Your task to perform on an android device: Open Android settings Image 0: 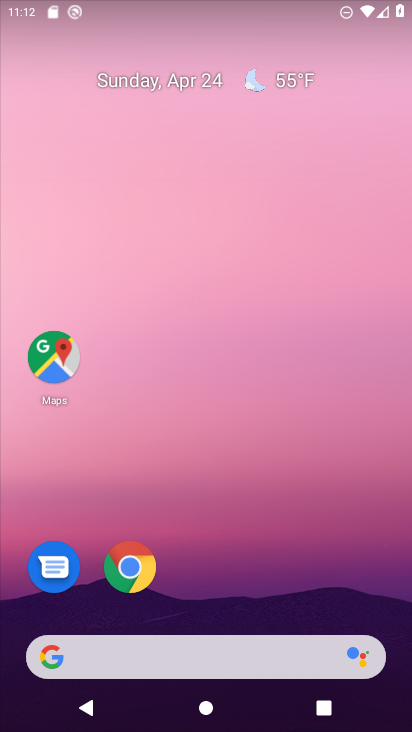
Step 0: drag from (381, 587) to (353, 185)
Your task to perform on an android device: Open Android settings Image 1: 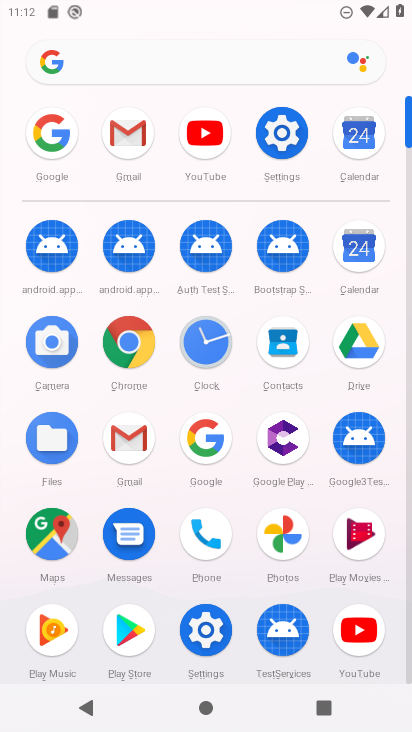
Step 1: click (197, 638)
Your task to perform on an android device: Open Android settings Image 2: 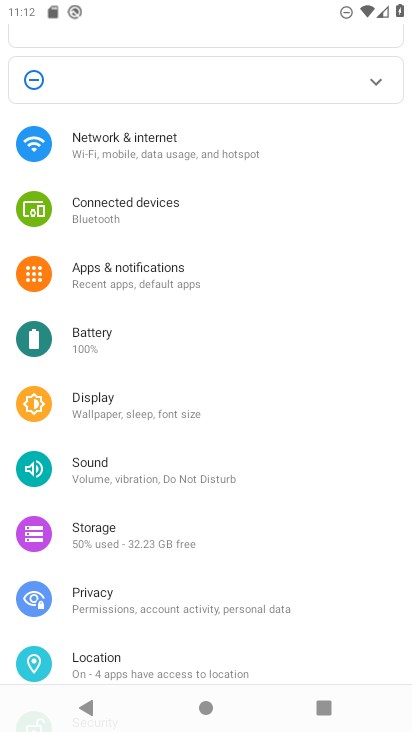
Step 2: drag from (361, 318) to (364, 230)
Your task to perform on an android device: Open Android settings Image 3: 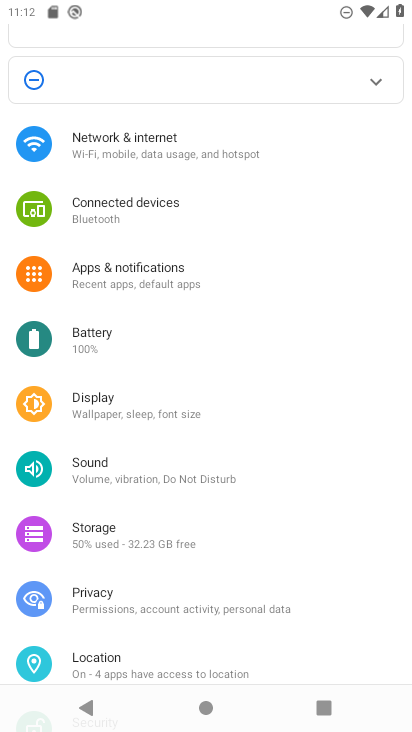
Step 3: drag from (361, 664) to (369, 319)
Your task to perform on an android device: Open Android settings Image 4: 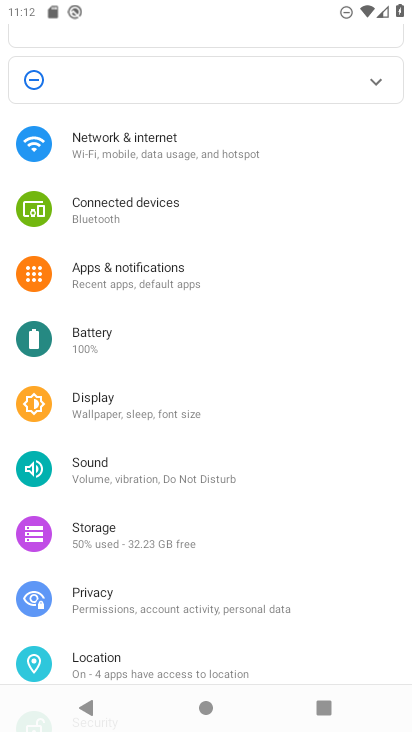
Step 4: drag from (372, 661) to (373, 492)
Your task to perform on an android device: Open Android settings Image 5: 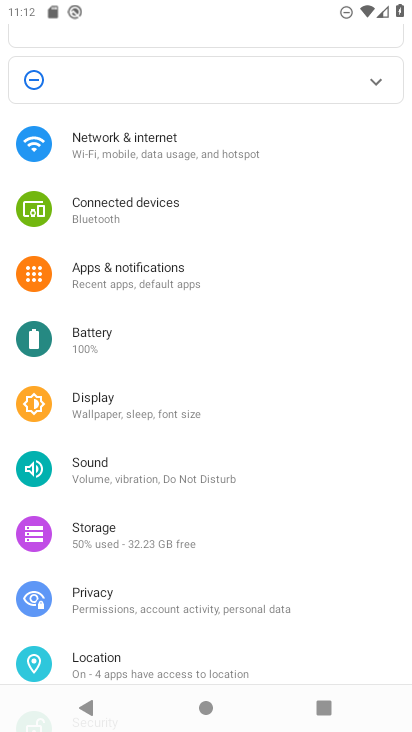
Step 5: drag from (372, 665) to (378, 317)
Your task to perform on an android device: Open Android settings Image 6: 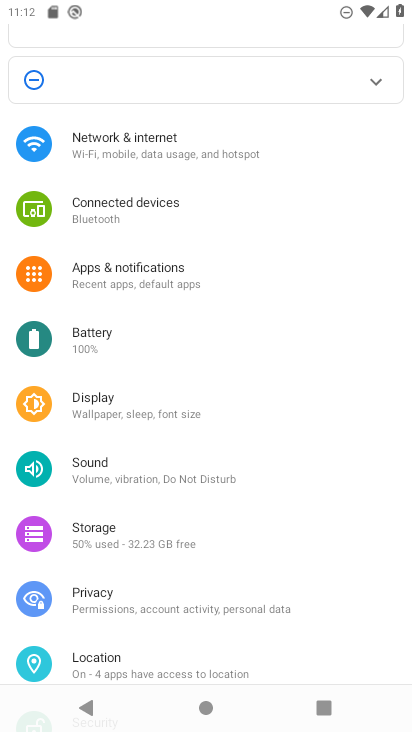
Step 6: drag from (378, 651) to (376, 317)
Your task to perform on an android device: Open Android settings Image 7: 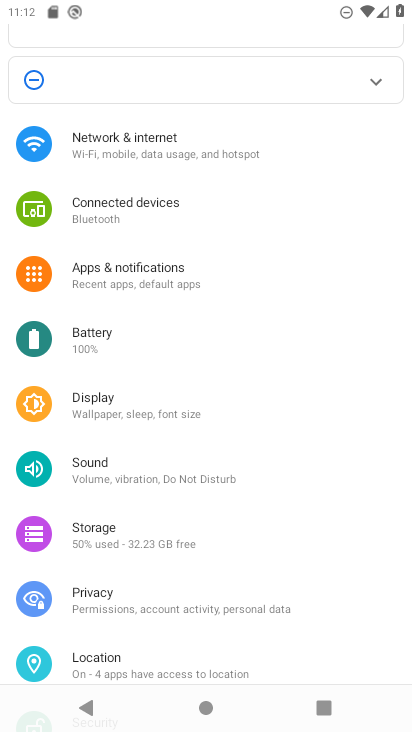
Step 7: drag from (378, 335) to (381, 300)
Your task to perform on an android device: Open Android settings Image 8: 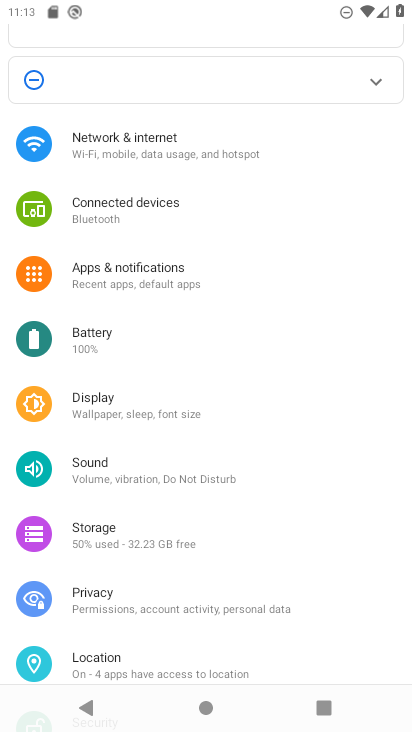
Step 8: drag from (387, 656) to (395, 304)
Your task to perform on an android device: Open Android settings Image 9: 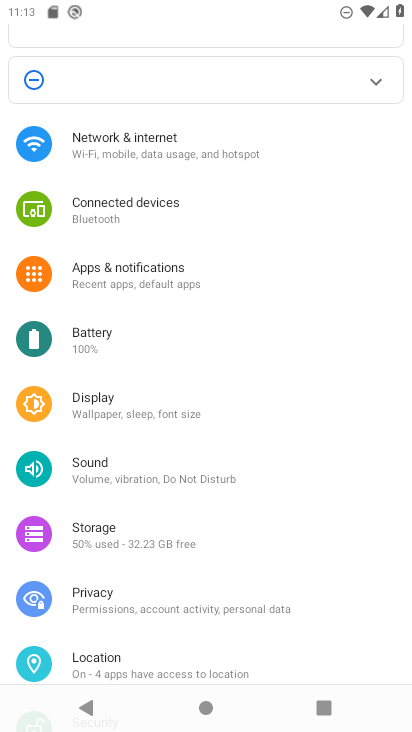
Step 9: drag from (361, 295) to (358, 247)
Your task to perform on an android device: Open Android settings Image 10: 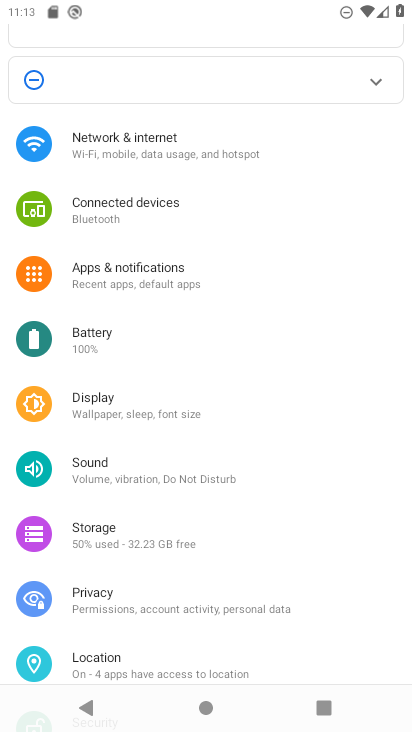
Step 10: click (367, 341)
Your task to perform on an android device: Open Android settings Image 11: 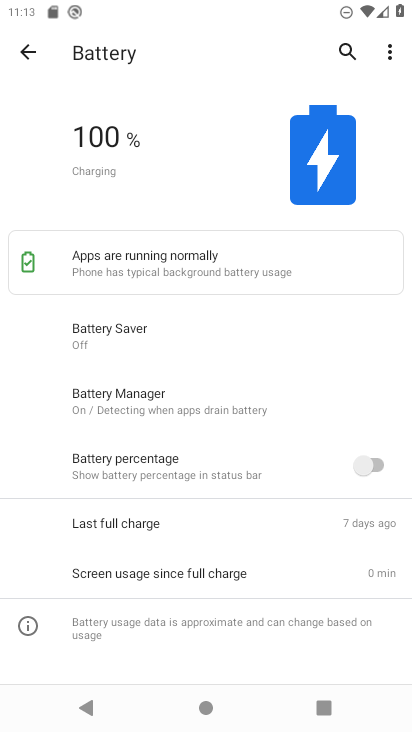
Step 11: click (29, 43)
Your task to perform on an android device: Open Android settings Image 12: 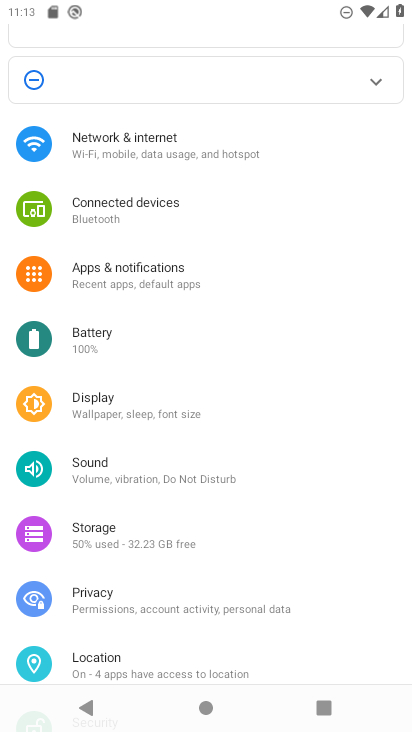
Step 12: click (389, 262)
Your task to perform on an android device: Open Android settings Image 13: 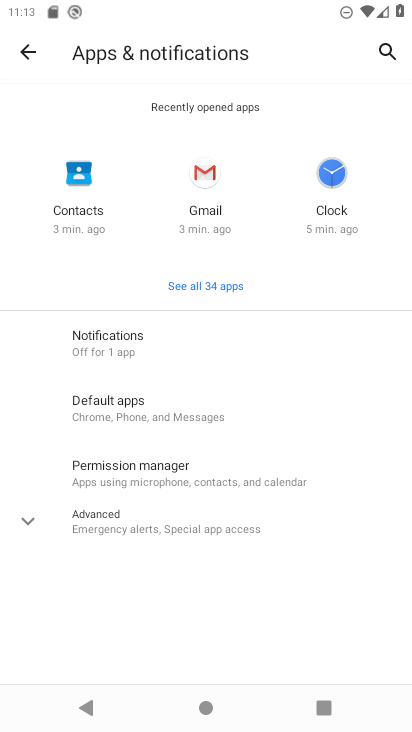
Step 13: drag from (371, 635) to (363, 204)
Your task to perform on an android device: Open Android settings Image 14: 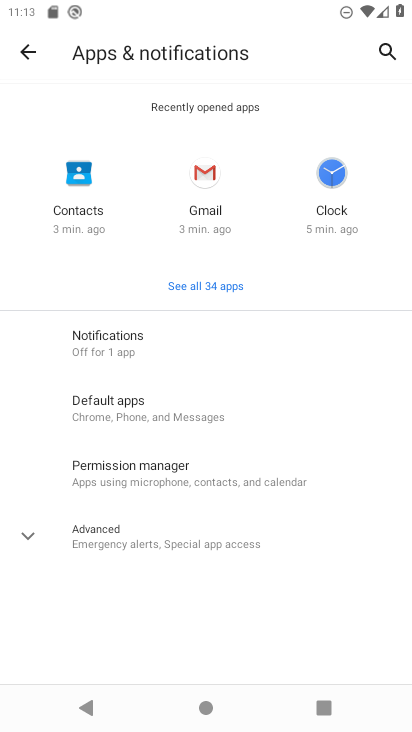
Step 14: click (22, 54)
Your task to perform on an android device: Open Android settings Image 15: 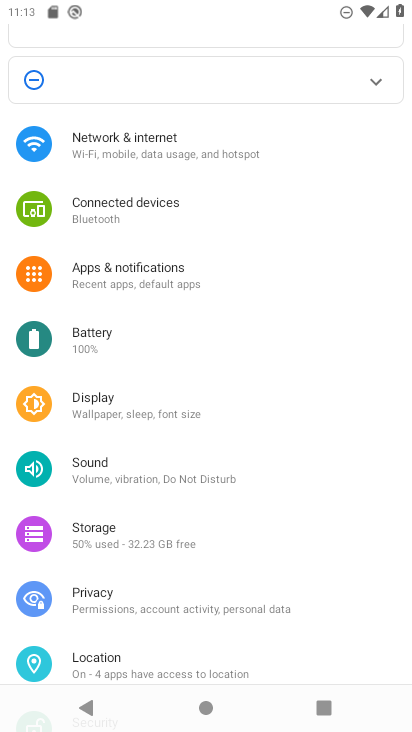
Step 15: drag from (363, 324) to (354, 227)
Your task to perform on an android device: Open Android settings Image 16: 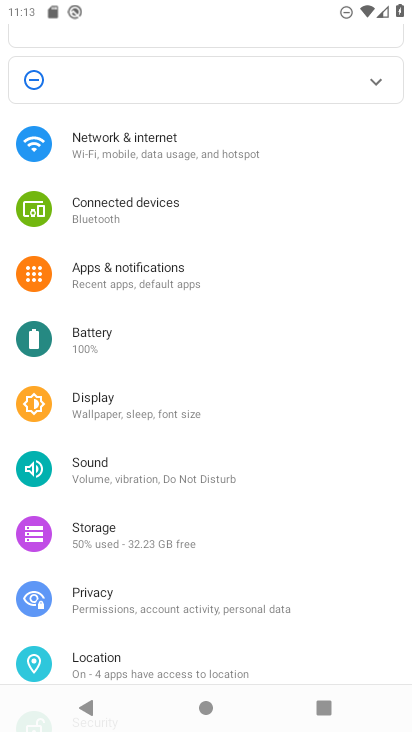
Step 16: drag from (380, 494) to (392, 212)
Your task to perform on an android device: Open Android settings Image 17: 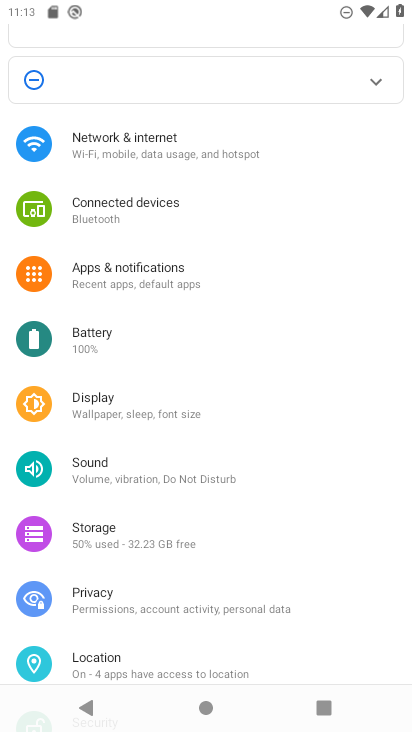
Step 17: drag from (368, 636) to (410, 547)
Your task to perform on an android device: Open Android settings Image 18: 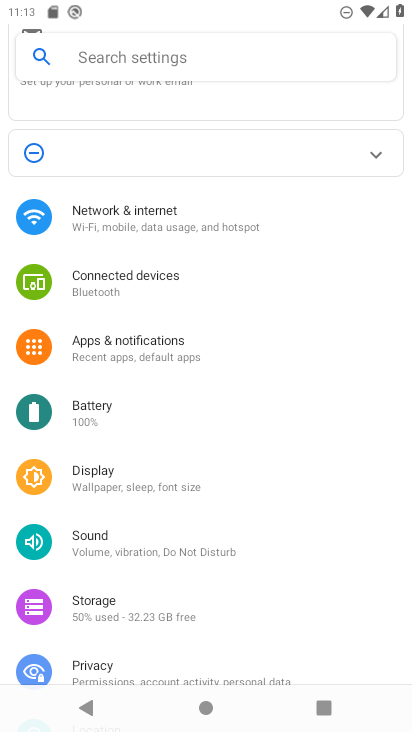
Step 18: drag from (360, 373) to (344, 220)
Your task to perform on an android device: Open Android settings Image 19: 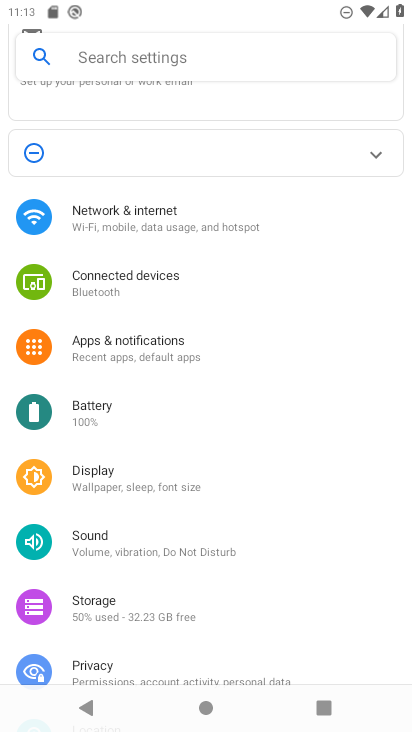
Step 19: drag from (383, 443) to (374, 240)
Your task to perform on an android device: Open Android settings Image 20: 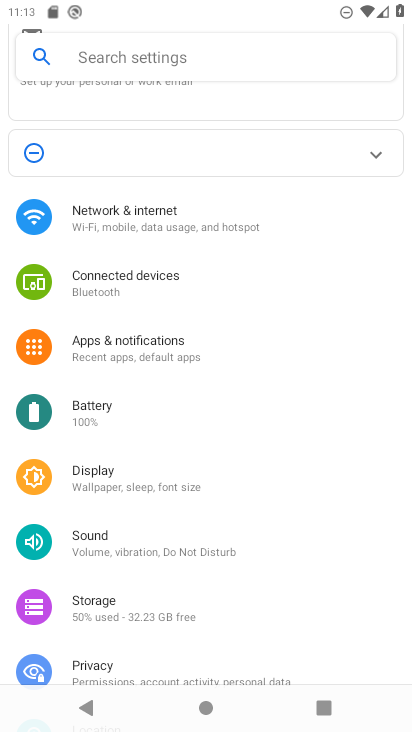
Step 20: drag from (367, 644) to (381, 167)
Your task to perform on an android device: Open Android settings Image 21: 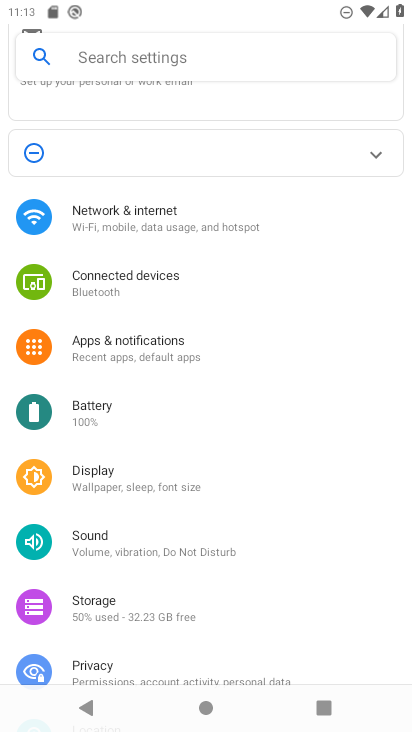
Step 21: drag from (332, 651) to (322, 371)
Your task to perform on an android device: Open Android settings Image 22: 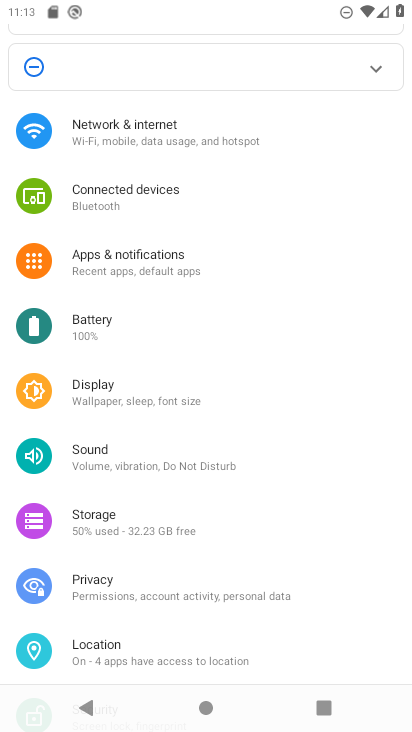
Step 22: drag from (341, 657) to (348, 291)
Your task to perform on an android device: Open Android settings Image 23: 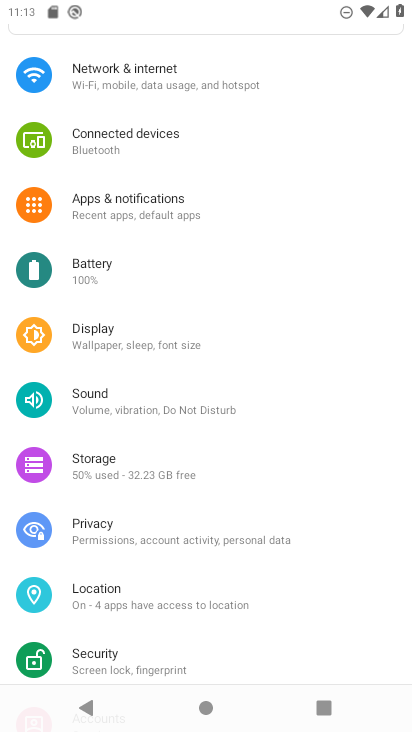
Step 23: drag from (349, 589) to (363, 242)
Your task to perform on an android device: Open Android settings Image 24: 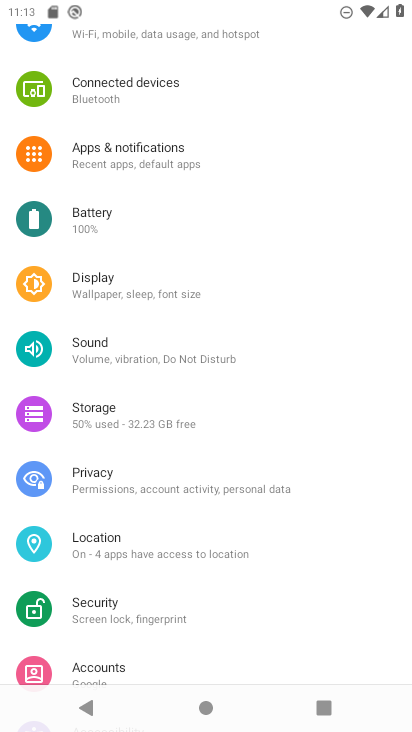
Step 24: drag from (366, 655) to (383, 270)
Your task to perform on an android device: Open Android settings Image 25: 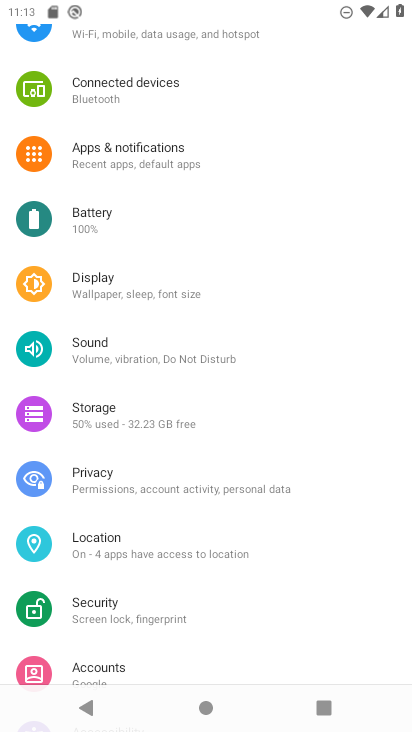
Step 25: drag from (330, 437) to (337, 150)
Your task to perform on an android device: Open Android settings Image 26: 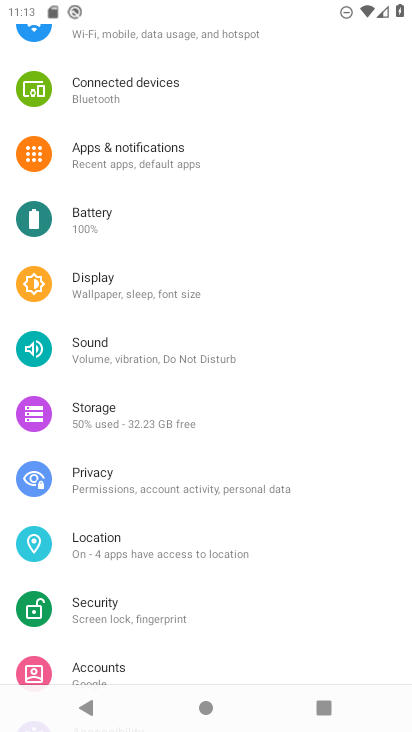
Step 26: drag from (336, 626) to (355, 214)
Your task to perform on an android device: Open Android settings Image 27: 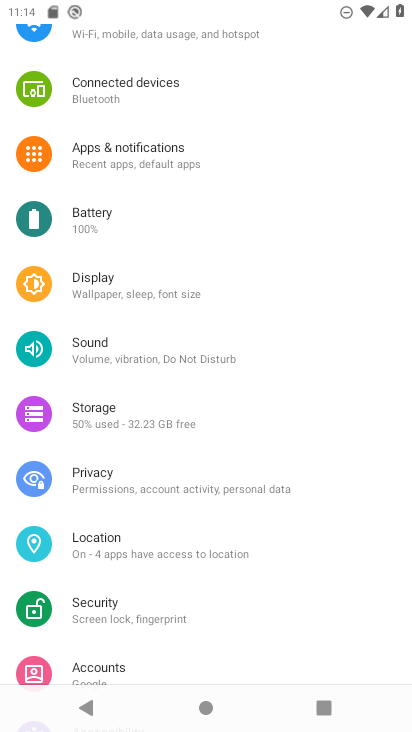
Step 27: drag from (355, 639) to (313, 324)
Your task to perform on an android device: Open Android settings Image 28: 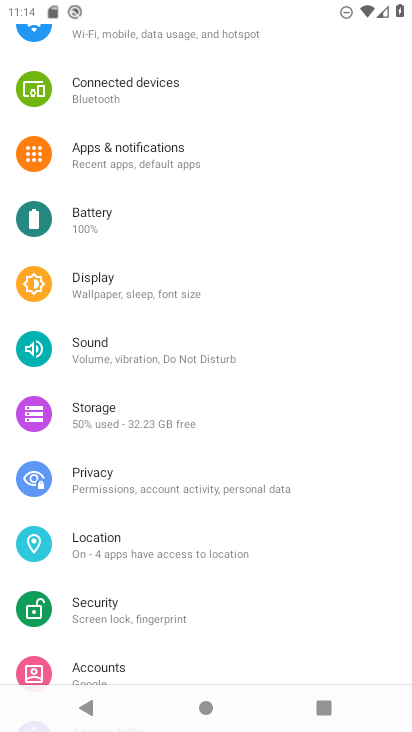
Step 28: drag from (334, 640) to (334, 312)
Your task to perform on an android device: Open Android settings Image 29: 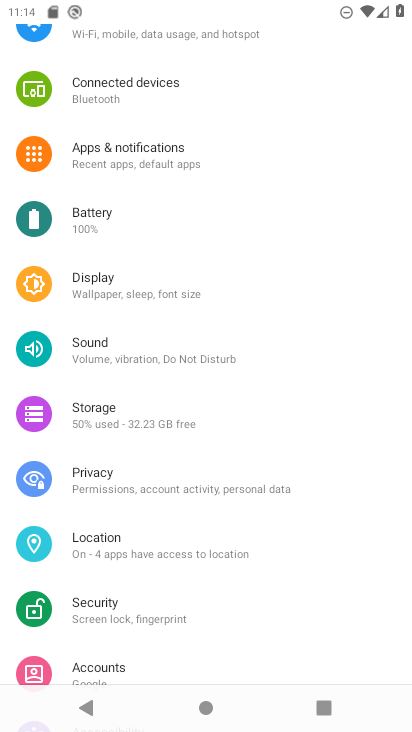
Step 29: drag from (350, 634) to (371, 340)
Your task to perform on an android device: Open Android settings Image 30: 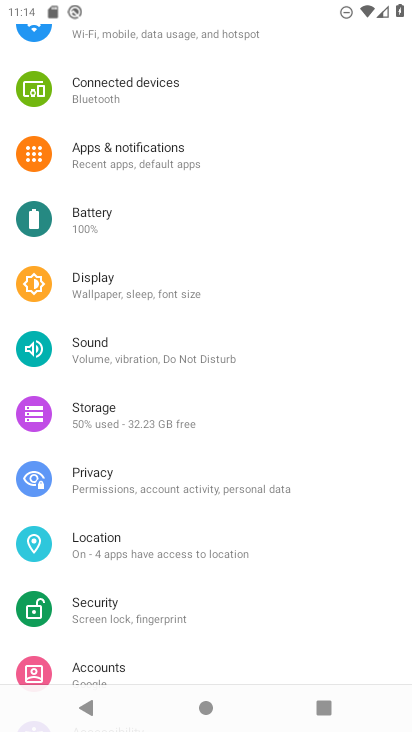
Step 30: click (374, 331)
Your task to perform on an android device: Open Android settings Image 31: 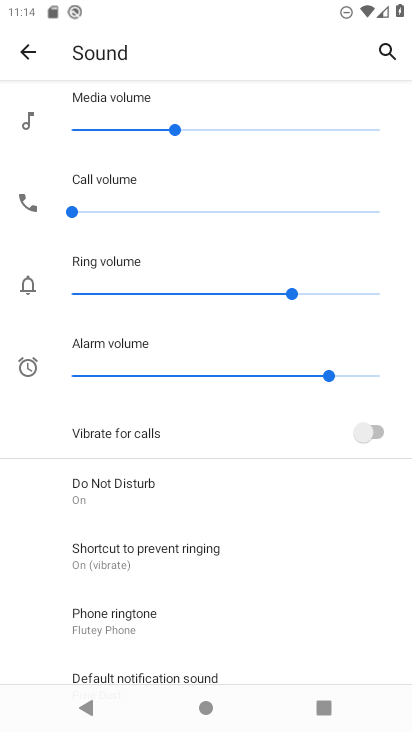
Step 31: click (17, 47)
Your task to perform on an android device: Open Android settings Image 32: 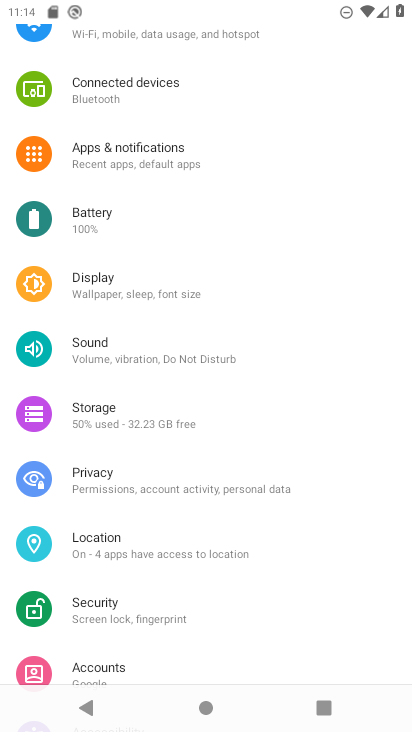
Step 32: drag from (329, 560) to (337, 209)
Your task to perform on an android device: Open Android settings Image 33: 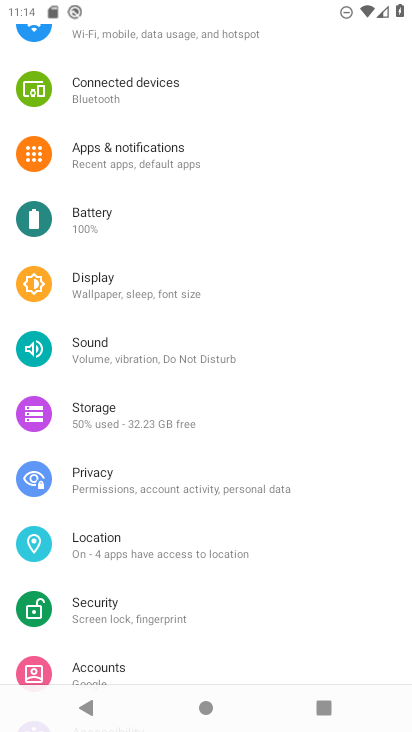
Step 33: drag from (379, 539) to (382, 292)
Your task to perform on an android device: Open Android settings Image 34: 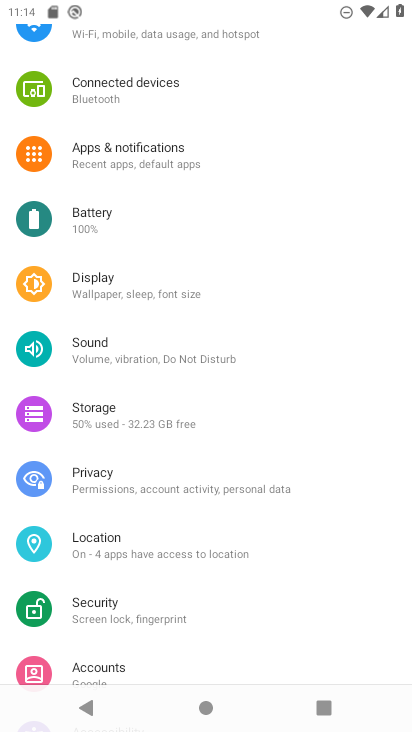
Step 34: drag from (356, 597) to (360, 233)
Your task to perform on an android device: Open Android settings Image 35: 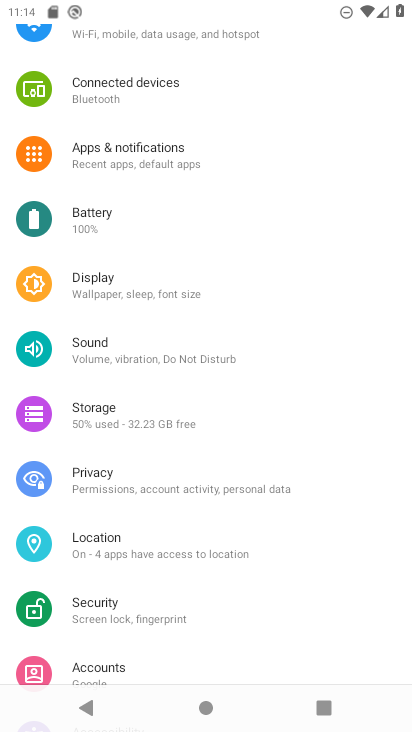
Step 35: drag from (372, 431) to (377, 291)
Your task to perform on an android device: Open Android settings Image 36: 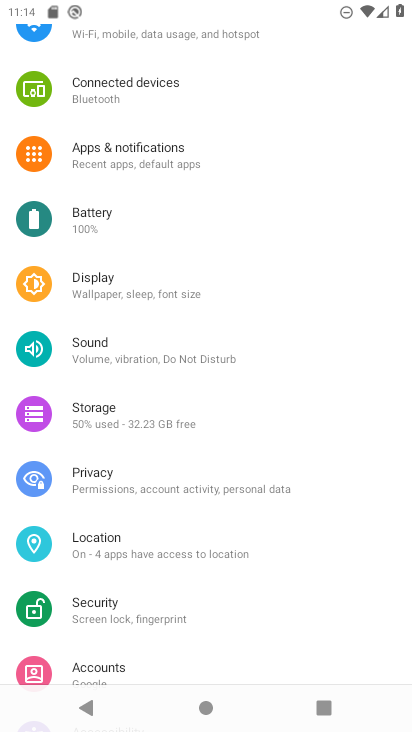
Step 36: drag from (381, 400) to (384, 322)
Your task to perform on an android device: Open Android settings Image 37: 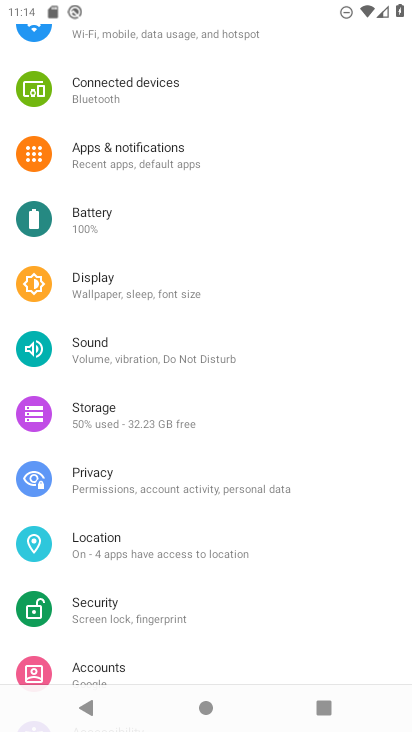
Step 37: drag from (367, 642) to (383, 256)
Your task to perform on an android device: Open Android settings Image 38: 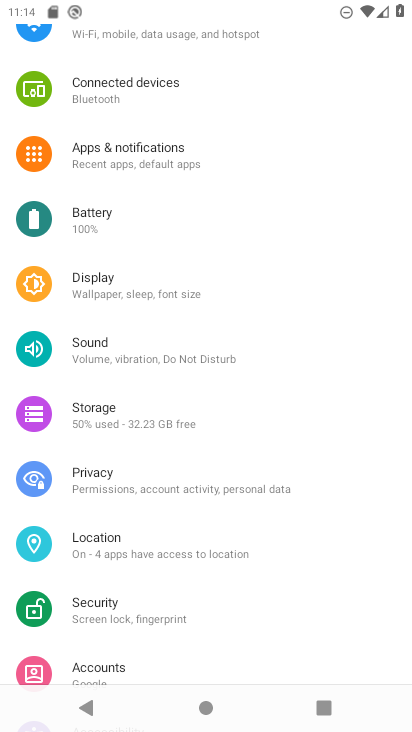
Step 38: drag from (380, 644) to (384, 165)
Your task to perform on an android device: Open Android settings Image 39: 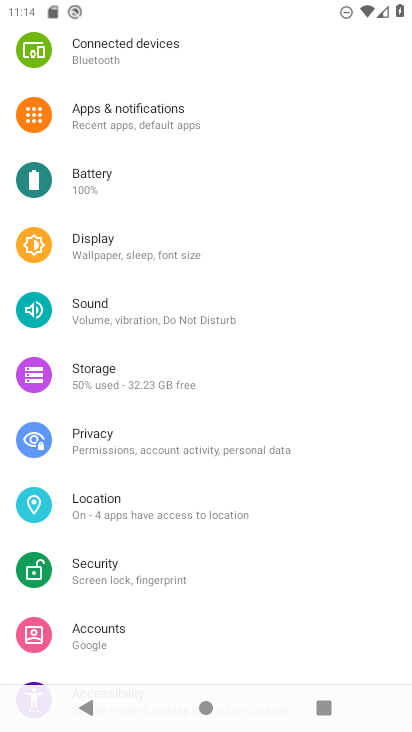
Step 39: drag from (363, 668) to (379, 235)
Your task to perform on an android device: Open Android settings Image 40: 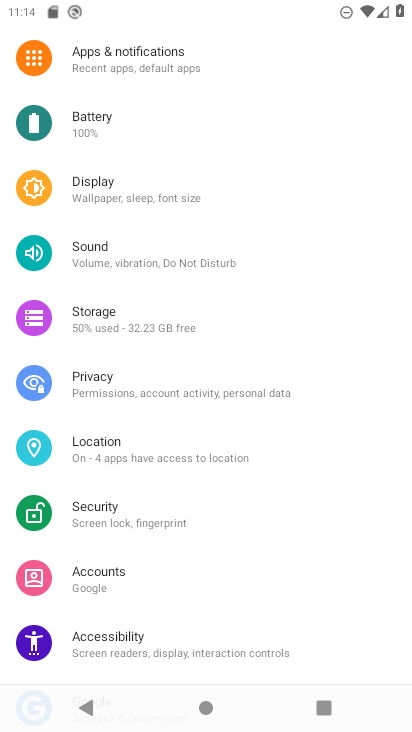
Step 40: drag from (371, 582) to (364, 247)
Your task to perform on an android device: Open Android settings Image 41: 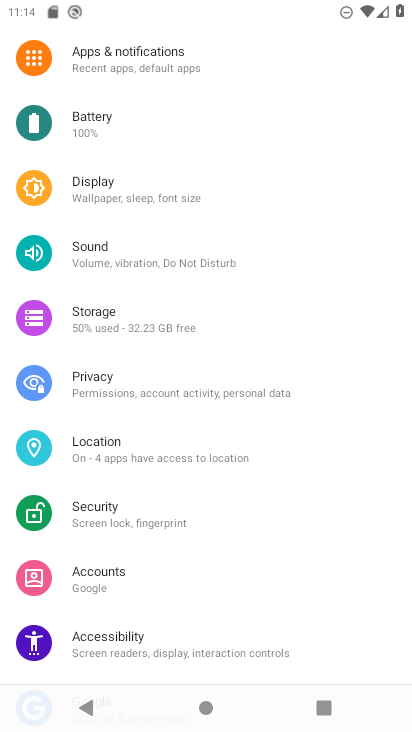
Step 41: drag from (352, 655) to (378, 191)
Your task to perform on an android device: Open Android settings Image 42: 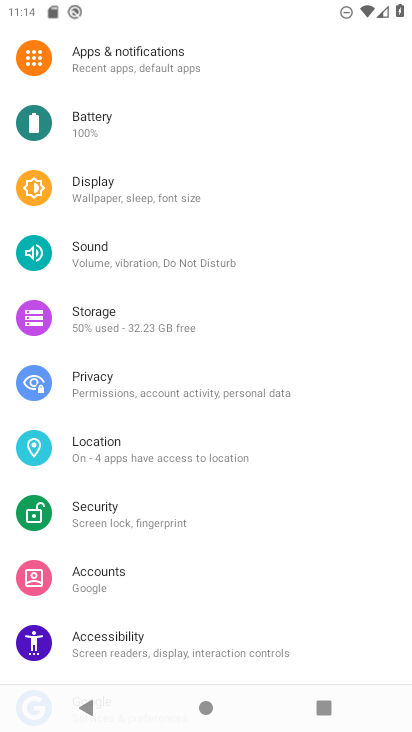
Step 42: drag from (357, 280) to (349, 144)
Your task to perform on an android device: Open Android settings Image 43: 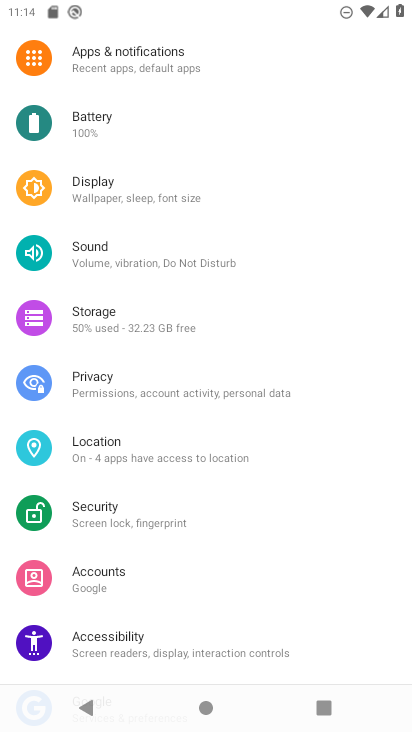
Step 43: drag from (371, 419) to (360, 277)
Your task to perform on an android device: Open Android settings Image 44: 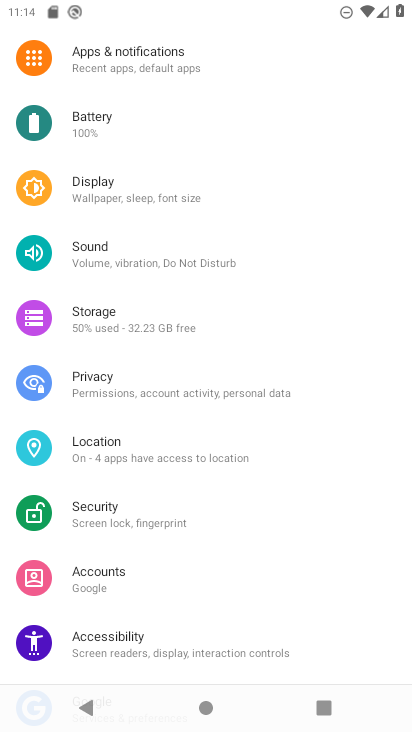
Step 44: drag from (366, 659) to (377, 176)
Your task to perform on an android device: Open Android settings Image 45: 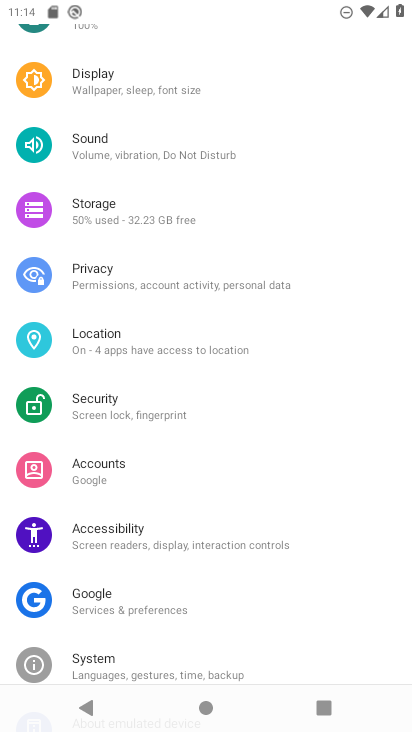
Step 45: drag from (377, 661) to (338, 143)
Your task to perform on an android device: Open Android settings Image 46: 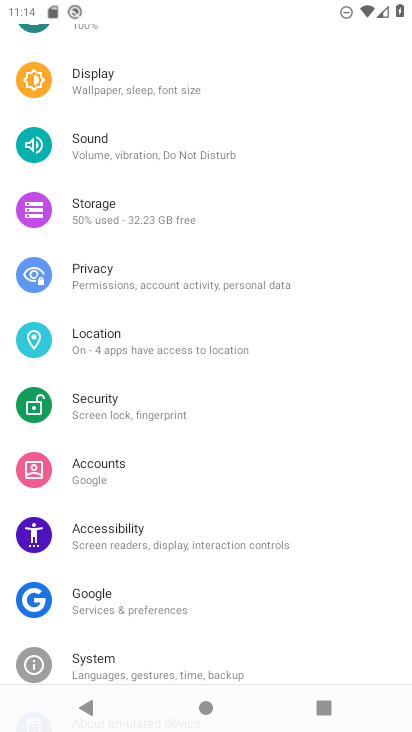
Step 46: drag from (378, 651) to (395, 246)
Your task to perform on an android device: Open Android settings Image 47: 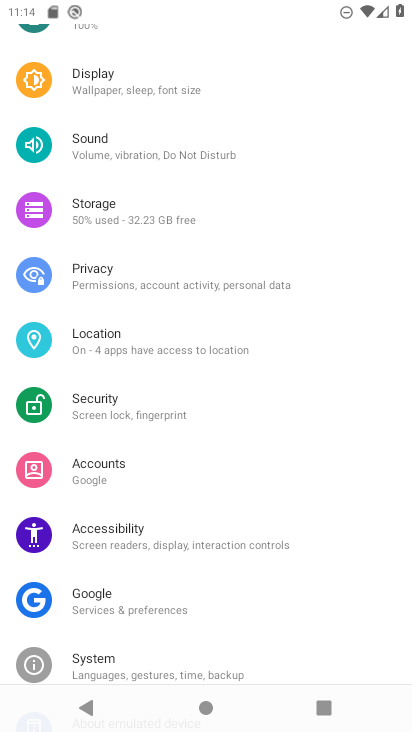
Step 47: drag from (380, 444) to (362, 202)
Your task to perform on an android device: Open Android settings Image 48: 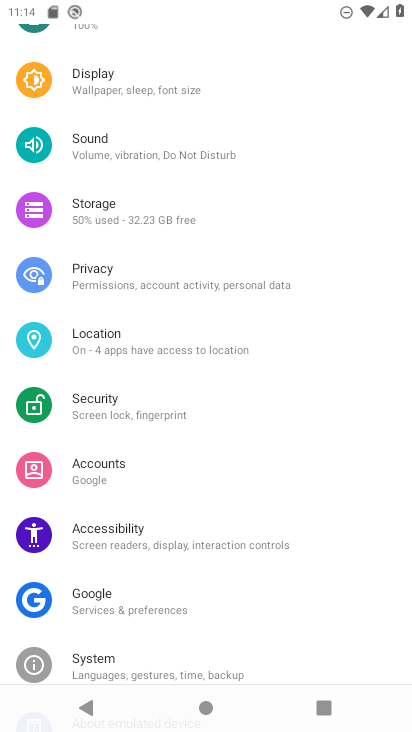
Step 48: drag from (370, 650) to (380, 185)
Your task to perform on an android device: Open Android settings Image 49: 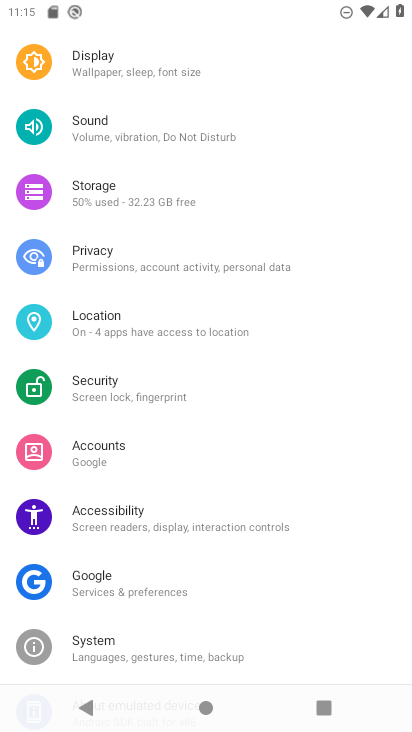
Step 49: drag from (365, 673) to (367, 245)
Your task to perform on an android device: Open Android settings Image 50: 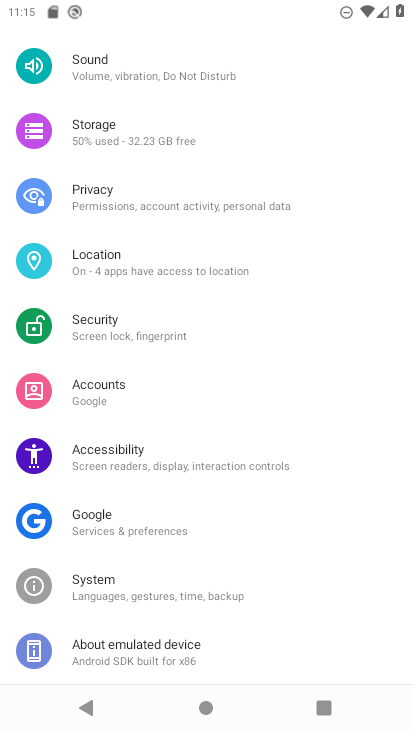
Step 50: click (106, 646)
Your task to perform on an android device: Open Android settings Image 51: 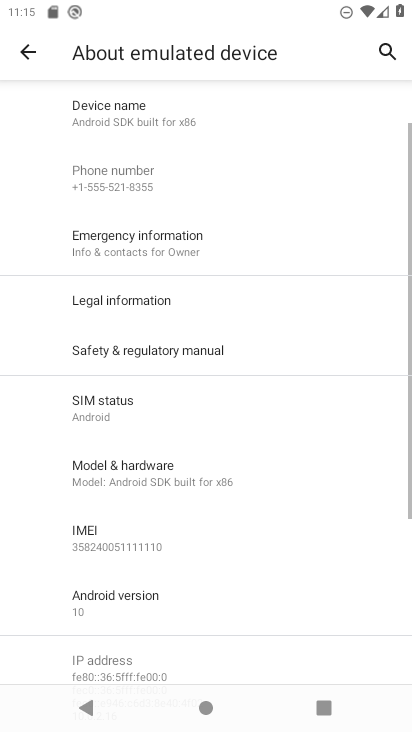
Step 51: task complete